Your task to perform on an android device: Search for "logitech g910" on costco, select the first entry, and add it to the cart. Image 0: 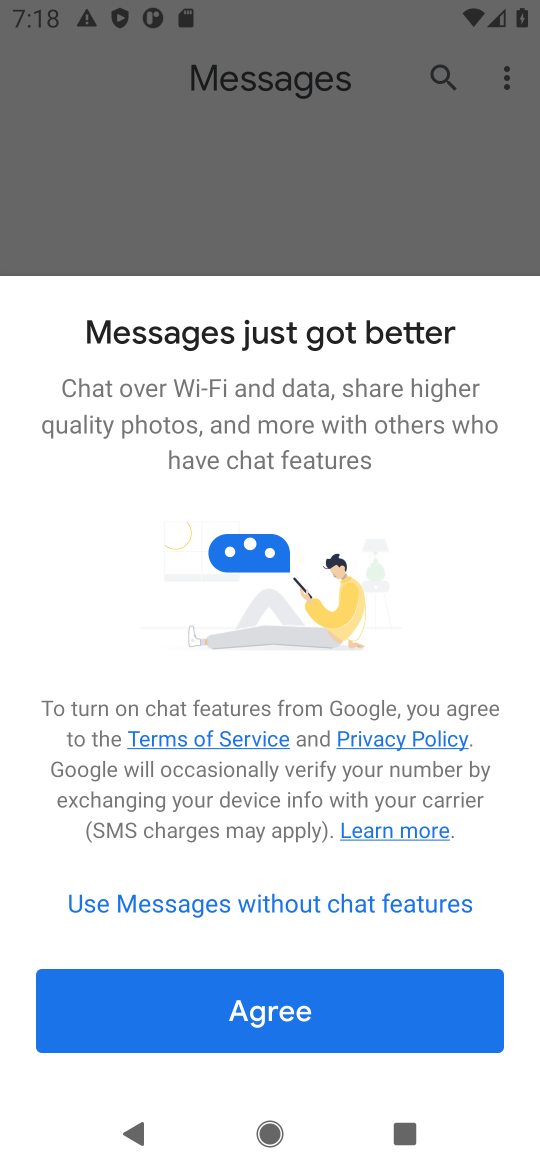
Step 0: press home button
Your task to perform on an android device: Search for "logitech g910" on costco, select the first entry, and add it to the cart. Image 1: 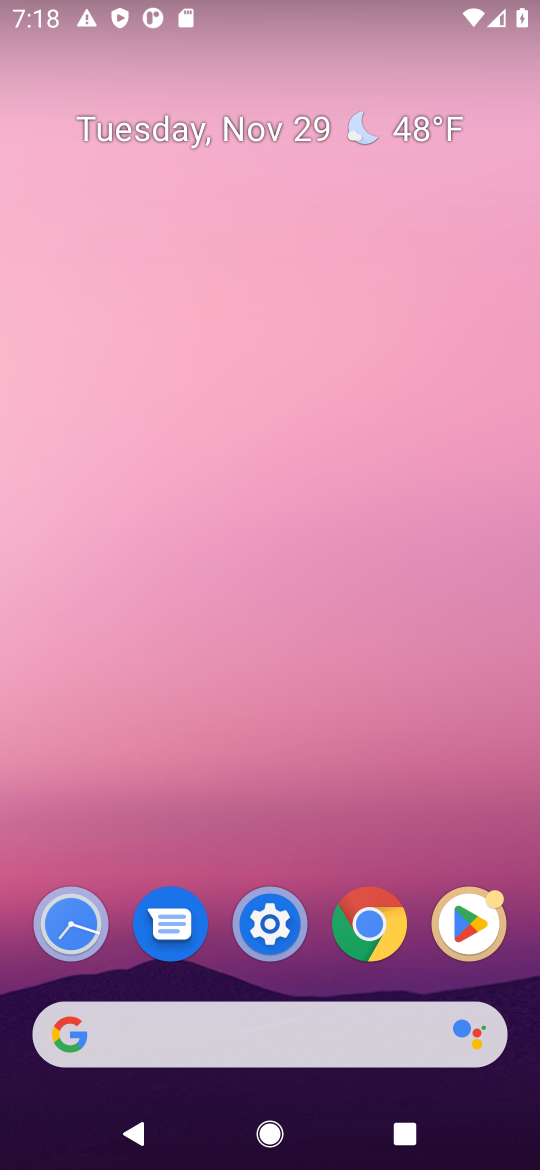
Step 1: click (344, 1037)
Your task to perform on an android device: Search for "logitech g910" on costco, select the first entry, and add it to the cart. Image 2: 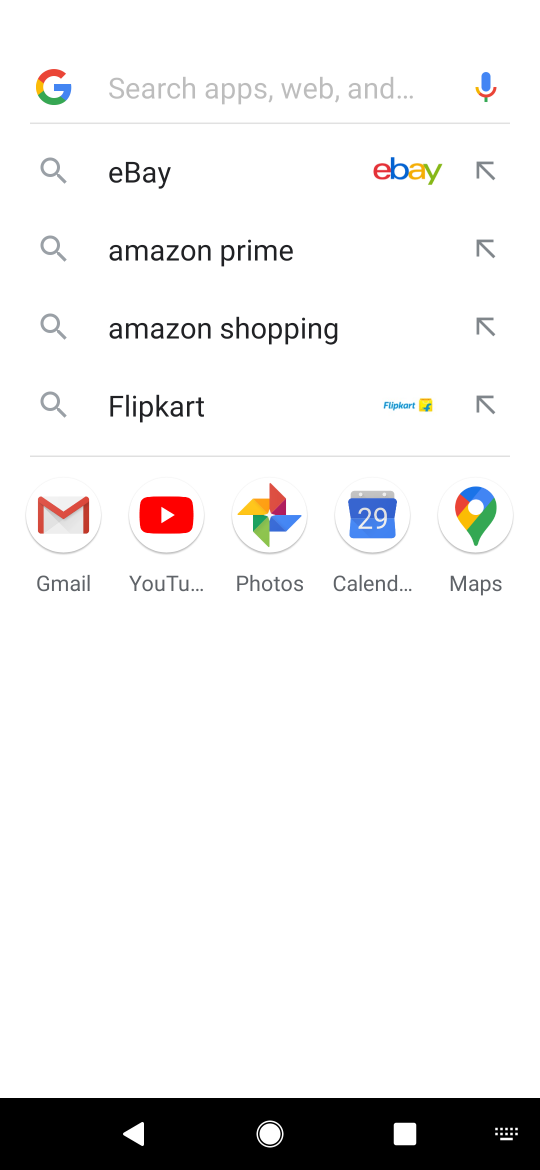
Step 2: type "costco.com"
Your task to perform on an android device: Search for "logitech g910" on costco, select the first entry, and add it to the cart. Image 3: 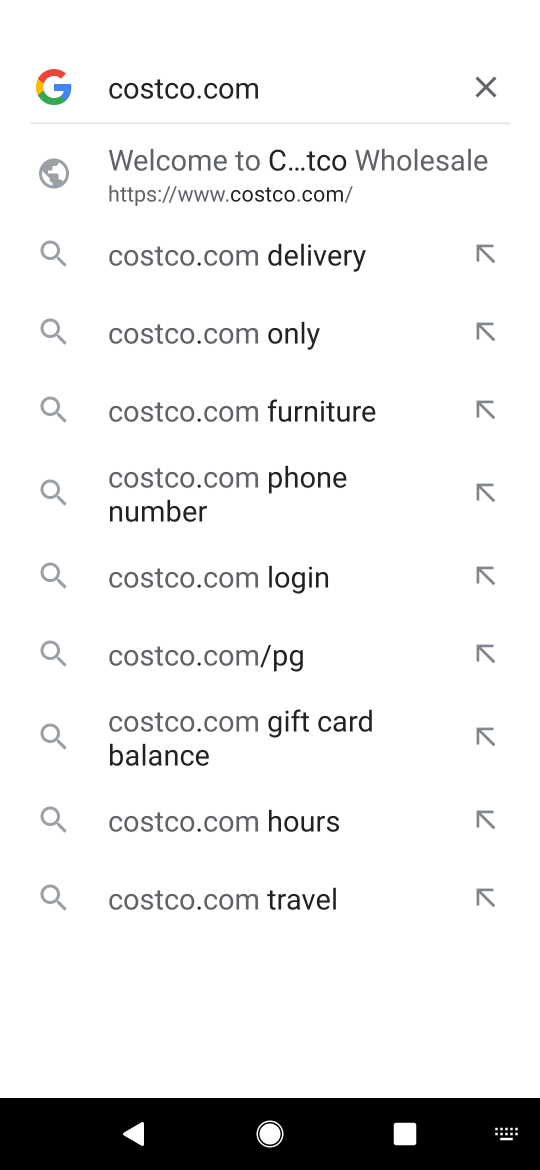
Step 3: click (198, 208)
Your task to perform on an android device: Search for "logitech g910" on costco, select the first entry, and add it to the cart. Image 4: 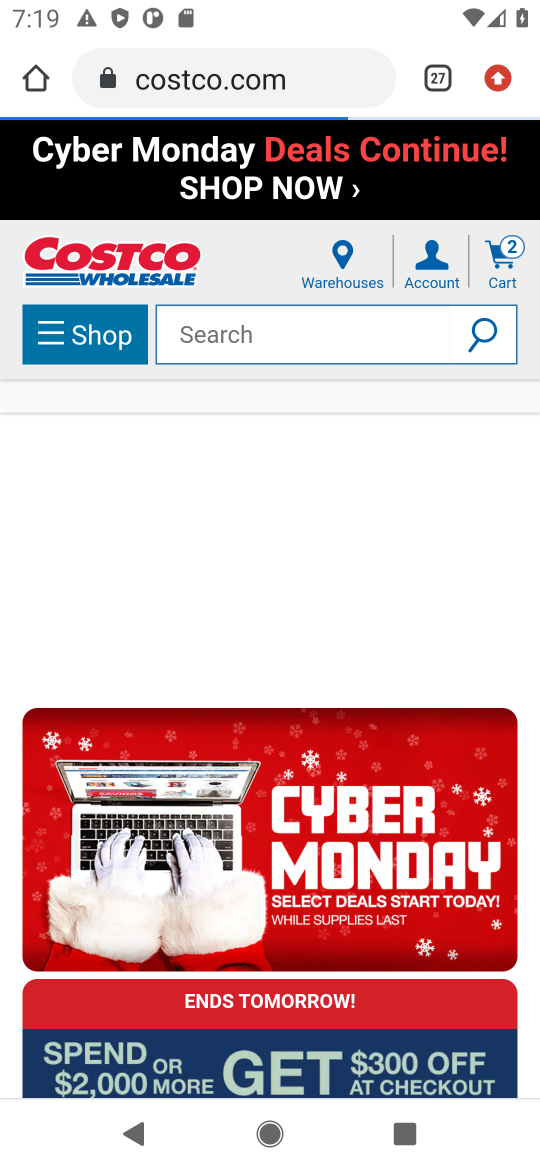
Step 4: click (245, 327)
Your task to perform on an android device: Search for "logitech g910" on costco, select the first entry, and add it to the cart. Image 5: 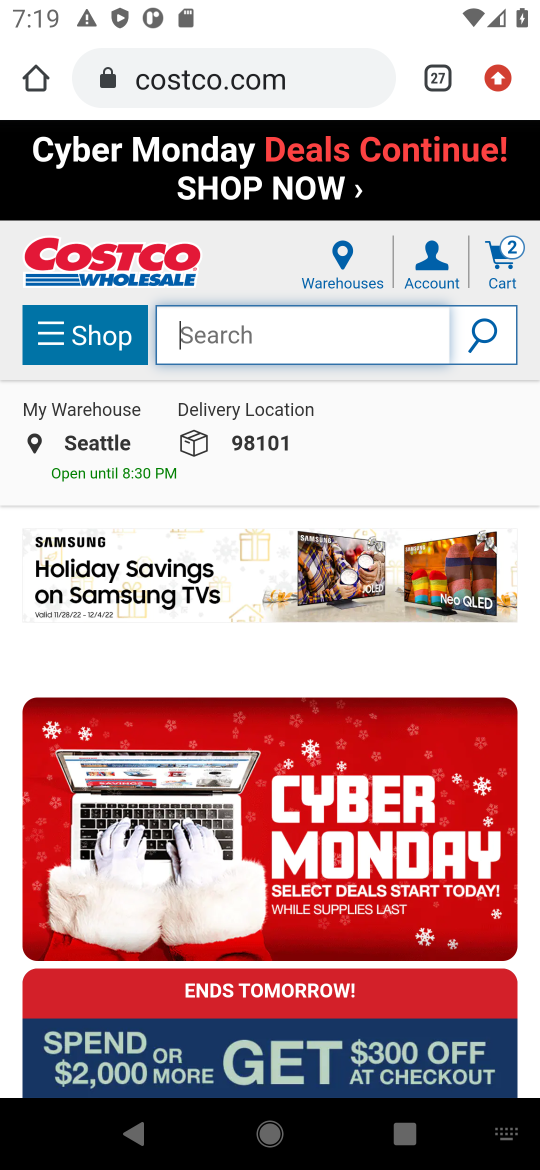
Step 5: type "logitech g910"
Your task to perform on an android device: Search for "logitech g910" on costco, select the first entry, and add it to the cart. Image 6: 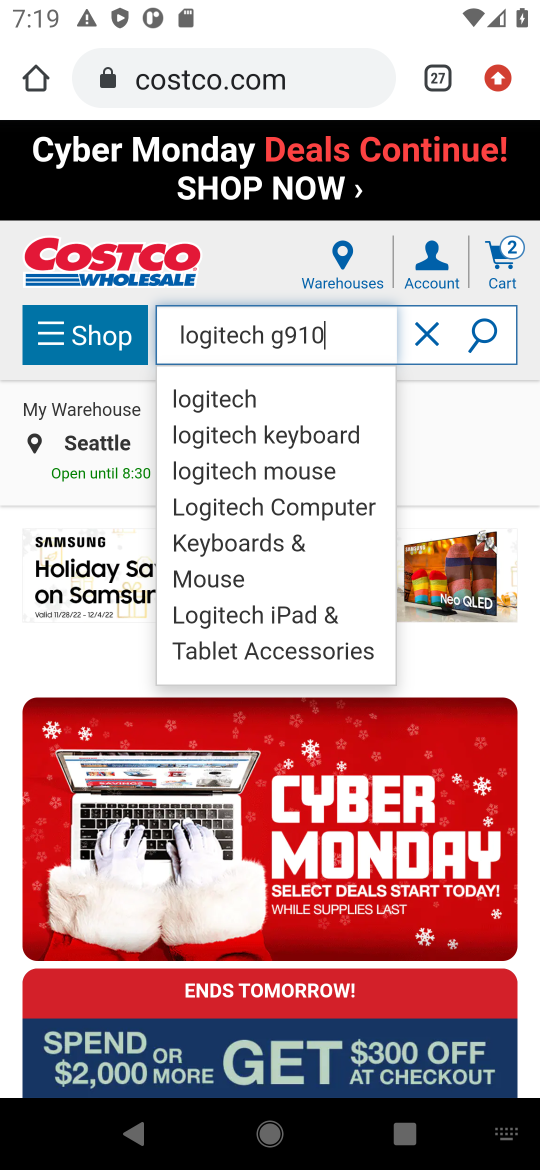
Step 6: click (496, 341)
Your task to perform on an android device: Search for "logitech g910" on costco, select the first entry, and add it to the cart. Image 7: 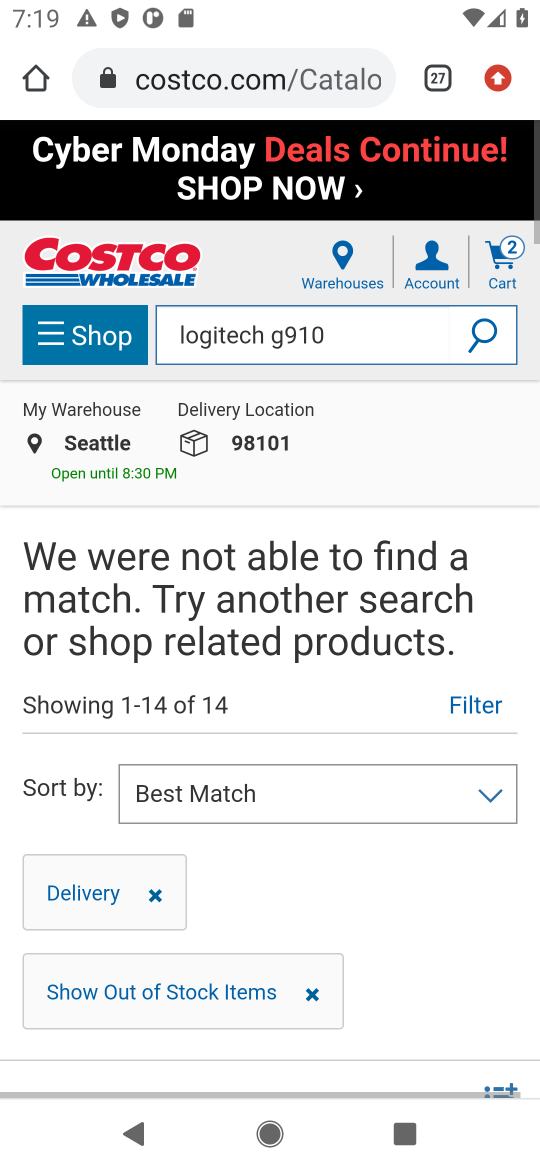
Step 7: task complete